Your task to perform on an android device: Open Chrome and go to settings Image 0: 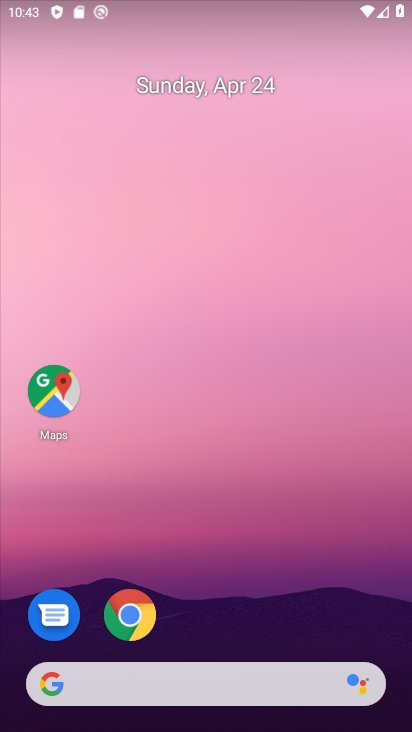
Step 0: drag from (215, 601) to (210, 69)
Your task to perform on an android device: Open Chrome and go to settings Image 1: 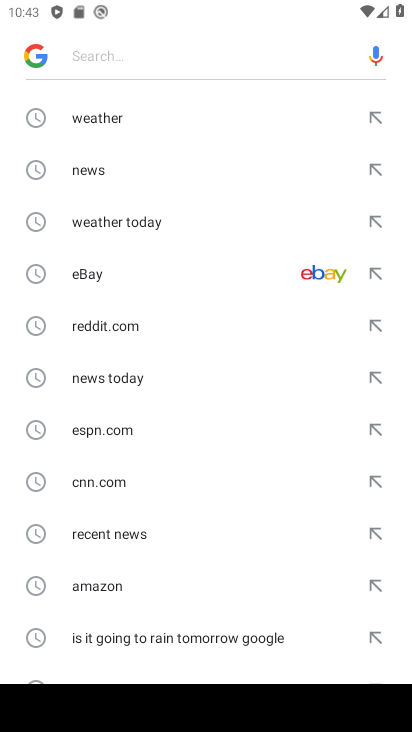
Step 1: press home button
Your task to perform on an android device: Open Chrome and go to settings Image 2: 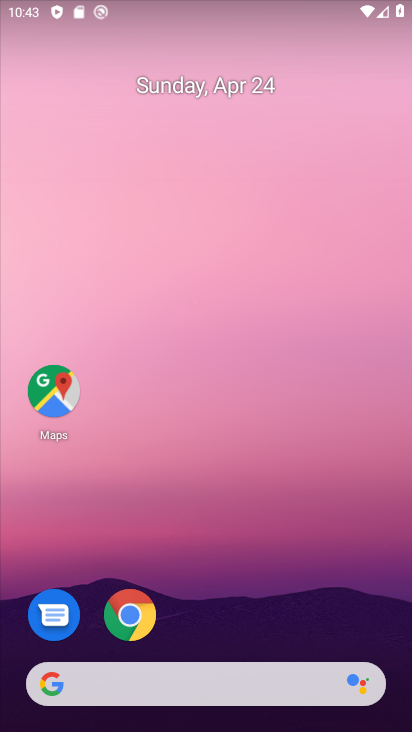
Step 2: drag from (216, 612) to (211, 81)
Your task to perform on an android device: Open Chrome and go to settings Image 3: 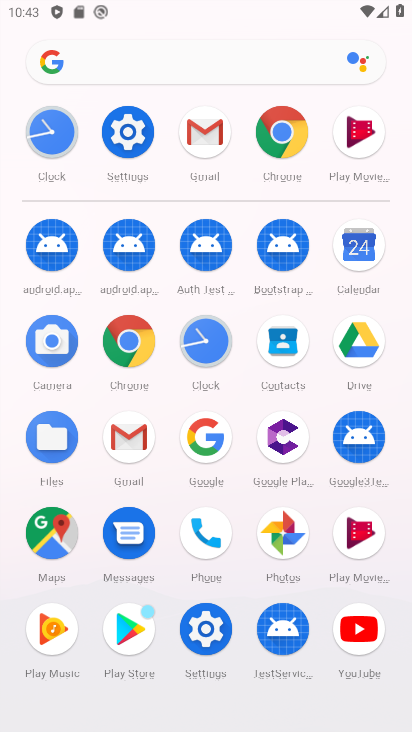
Step 3: click (124, 334)
Your task to perform on an android device: Open Chrome and go to settings Image 4: 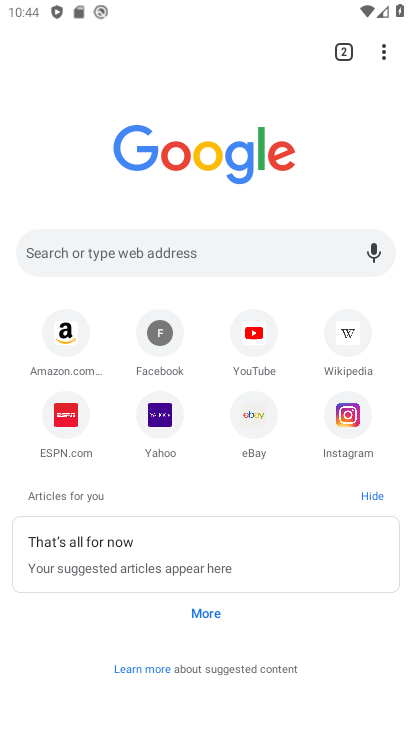
Step 4: click (383, 46)
Your task to perform on an android device: Open Chrome and go to settings Image 5: 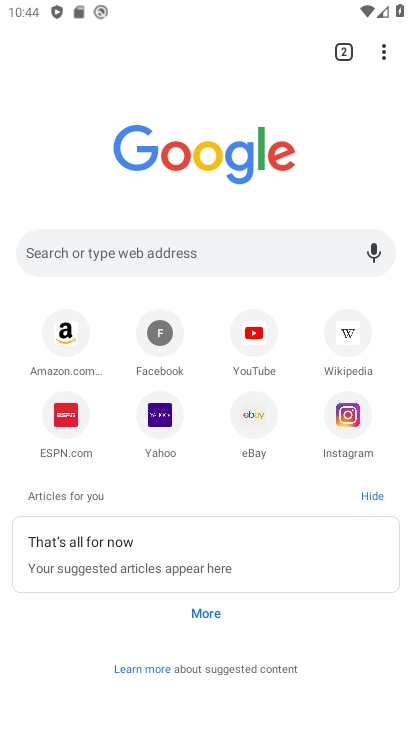
Step 5: click (379, 50)
Your task to perform on an android device: Open Chrome and go to settings Image 6: 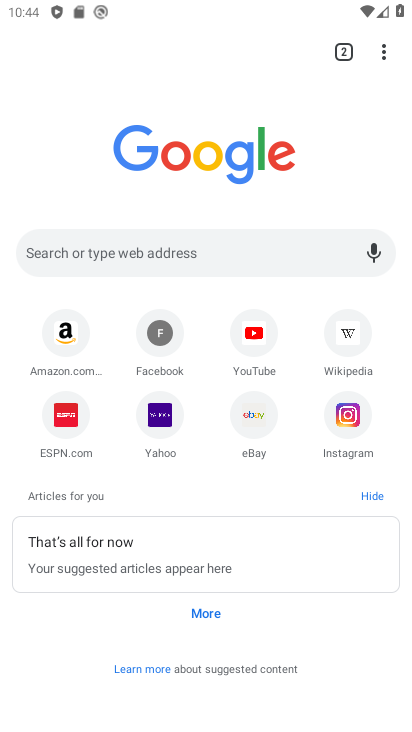
Step 6: click (378, 49)
Your task to perform on an android device: Open Chrome and go to settings Image 7: 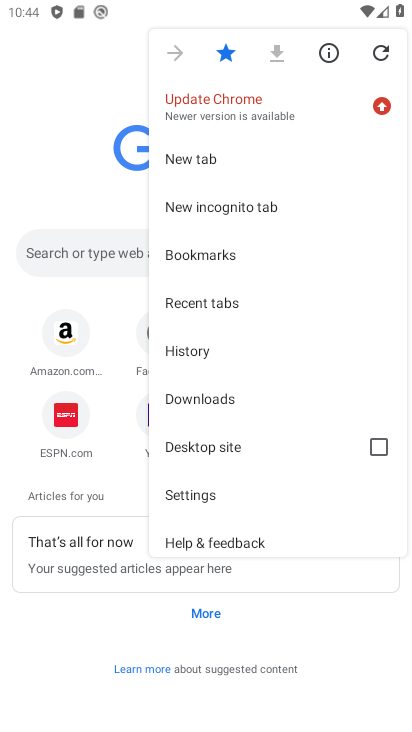
Step 7: click (220, 490)
Your task to perform on an android device: Open Chrome and go to settings Image 8: 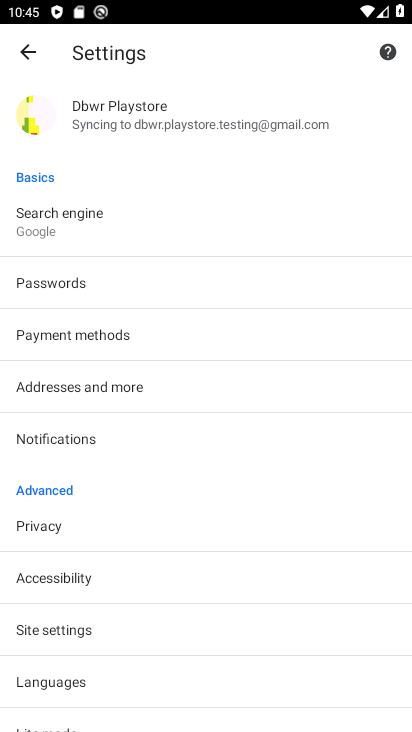
Step 8: task complete